Your task to perform on an android device: change alarm snooze length Image 0: 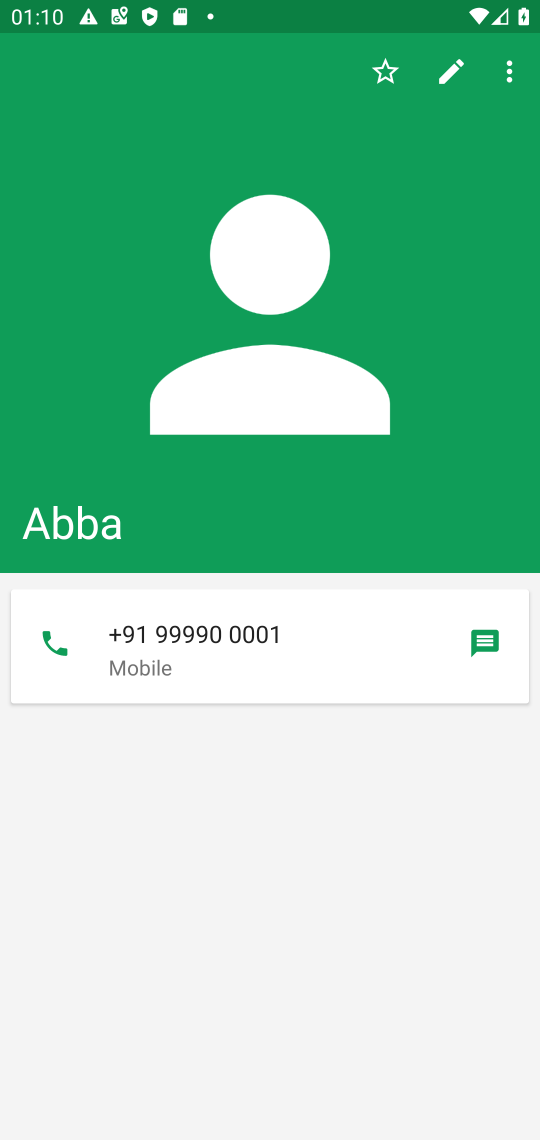
Step 0: press home button
Your task to perform on an android device: change alarm snooze length Image 1: 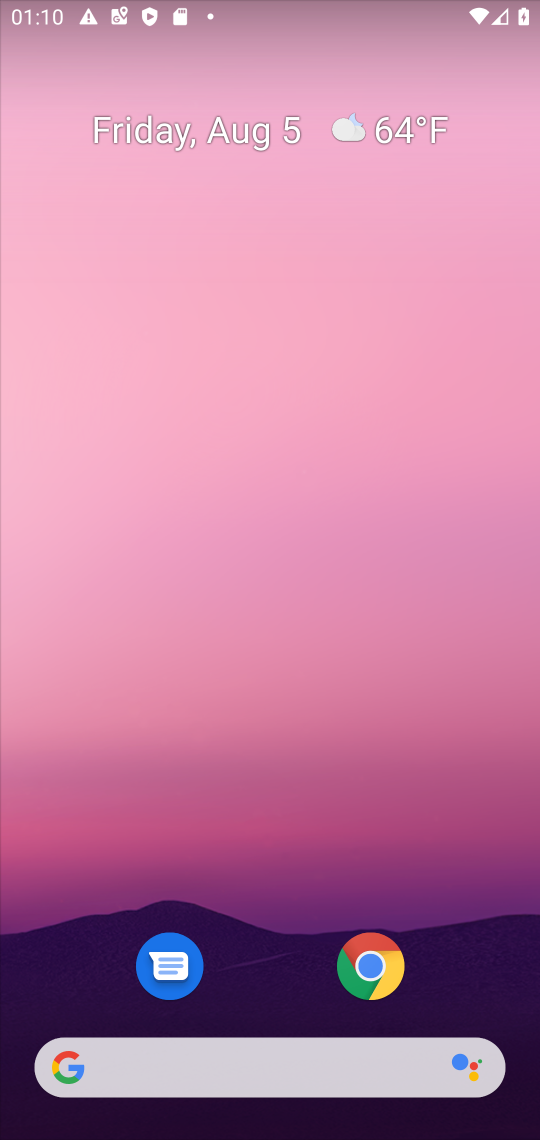
Step 1: drag from (294, 775) to (311, 79)
Your task to perform on an android device: change alarm snooze length Image 2: 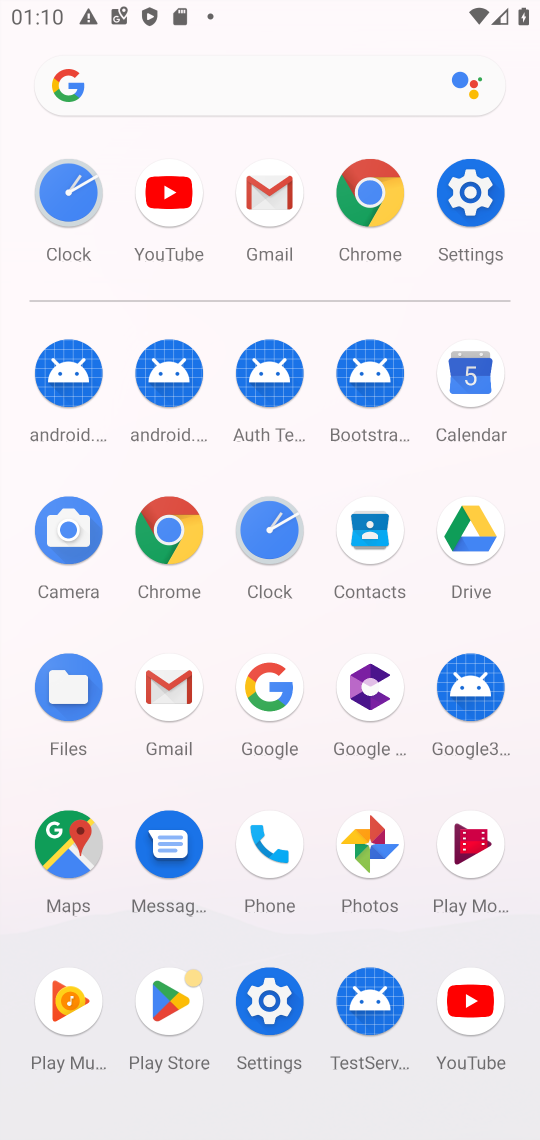
Step 2: click (69, 194)
Your task to perform on an android device: change alarm snooze length Image 3: 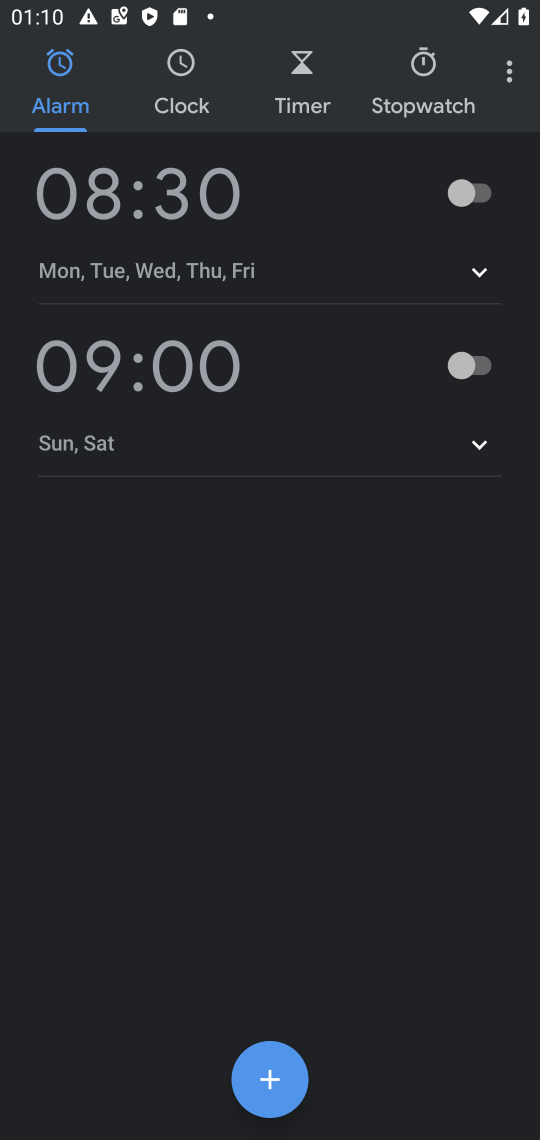
Step 3: click (507, 67)
Your task to perform on an android device: change alarm snooze length Image 4: 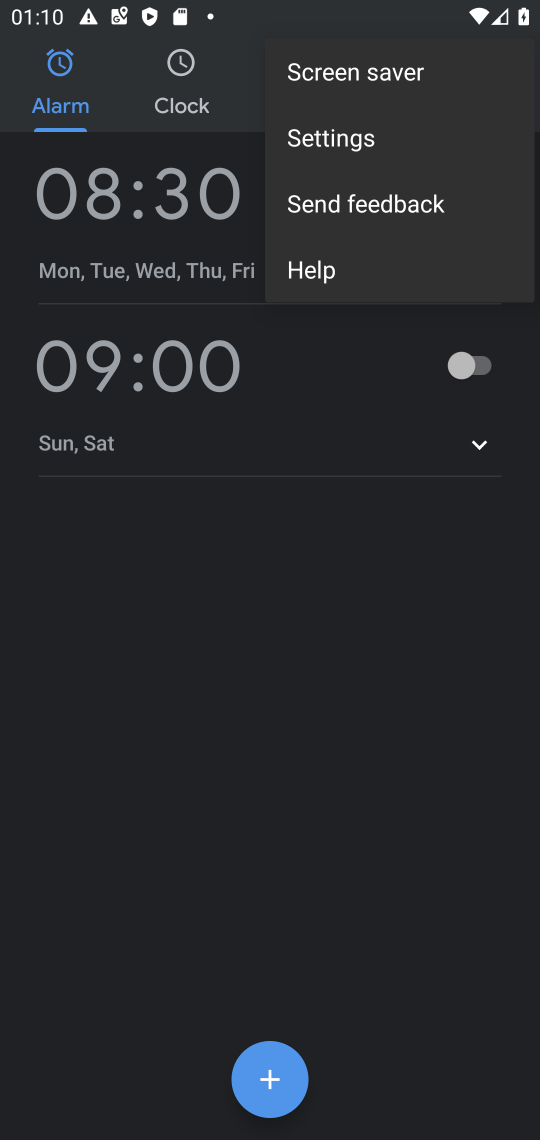
Step 4: click (355, 133)
Your task to perform on an android device: change alarm snooze length Image 5: 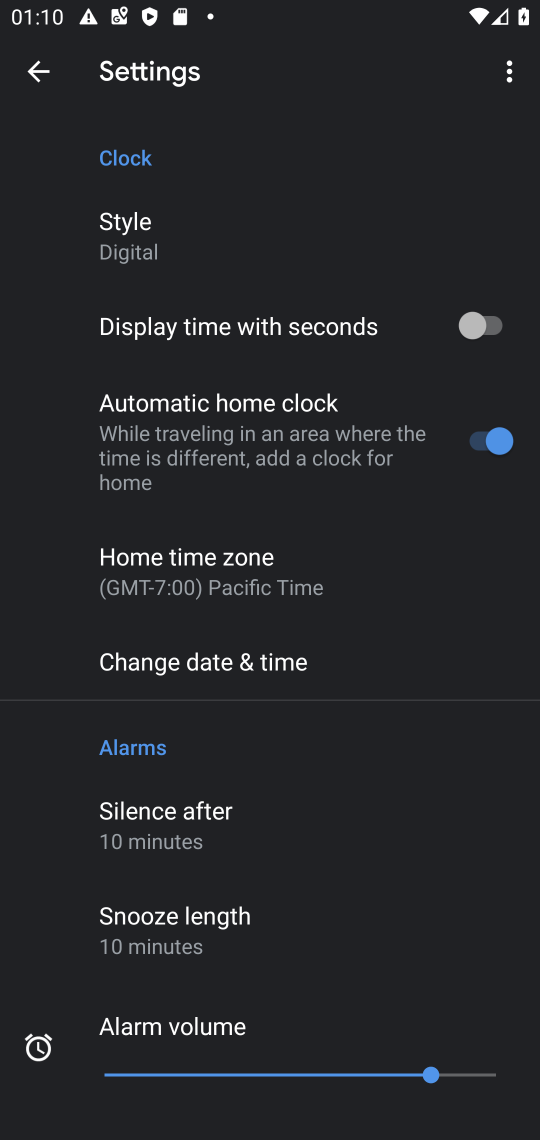
Step 5: click (229, 911)
Your task to perform on an android device: change alarm snooze length Image 6: 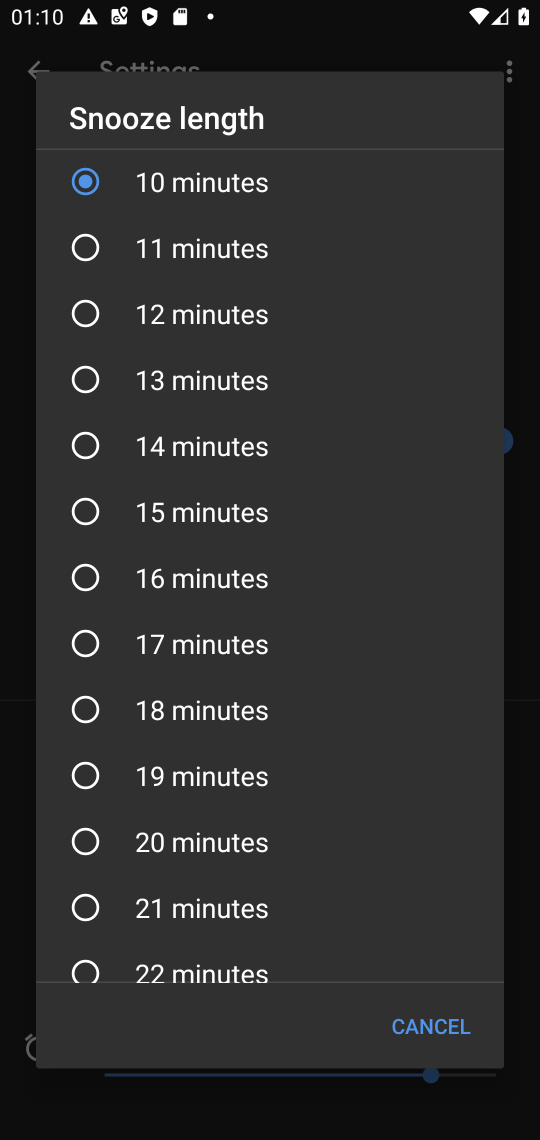
Step 6: click (94, 298)
Your task to perform on an android device: change alarm snooze length Image 7: 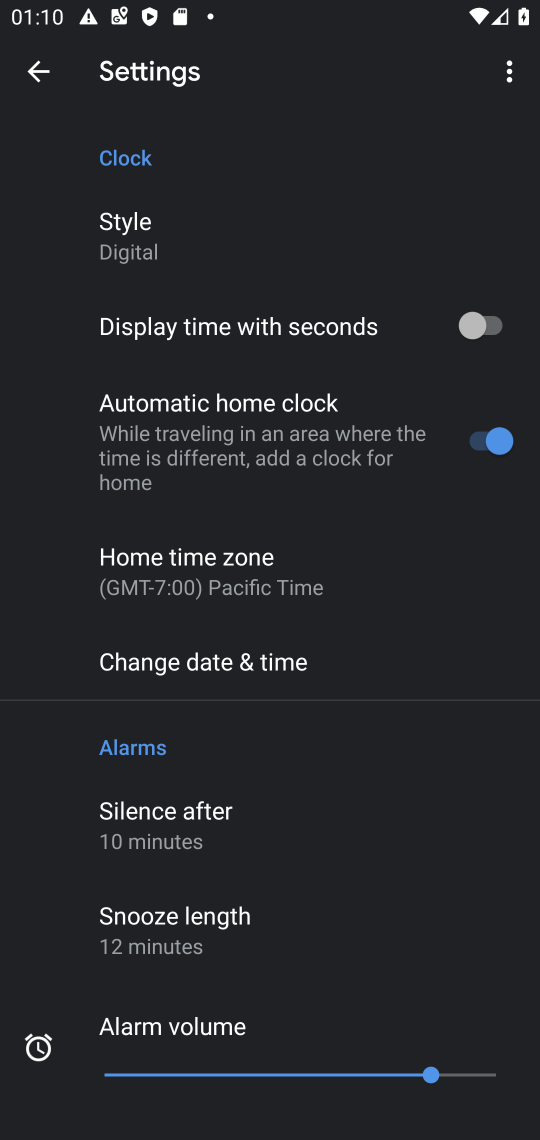
Step 7: task complete